Your task to perform on an android device: Go to eBay Image 0: 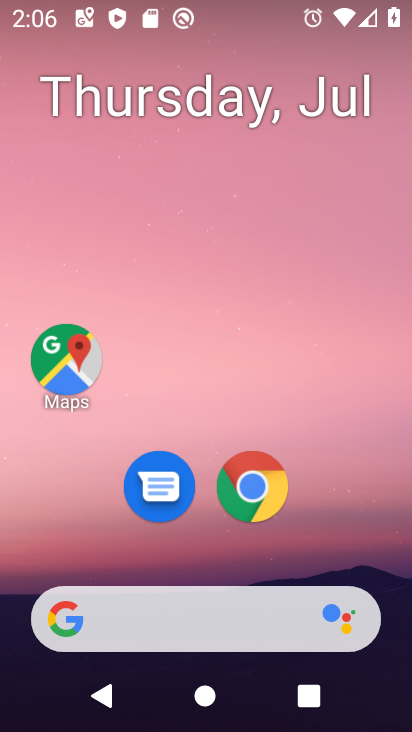
Step 0: click (260, 481)
Your task to perform on an android device: Go to eBay Image 1: 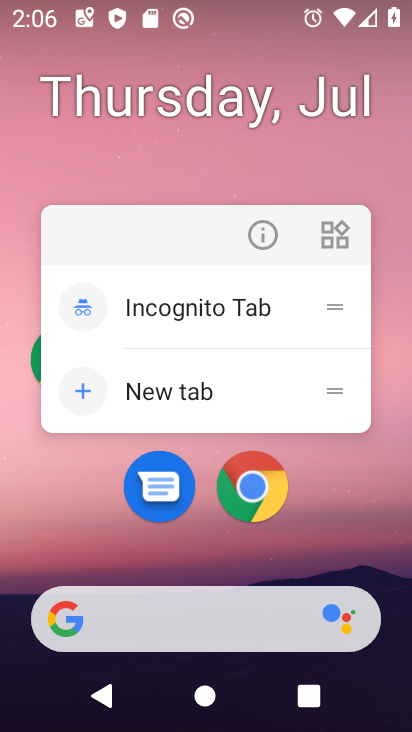
Step 1: click (253, 494)
Your task to perform on an android device: Go to eBay Image 2: 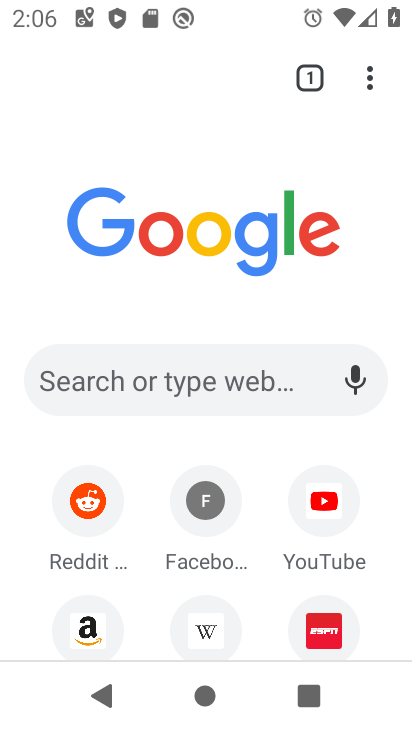
Step 2: click (131, 396)
Your task to perform on an android device: Go to eBay Image 3: 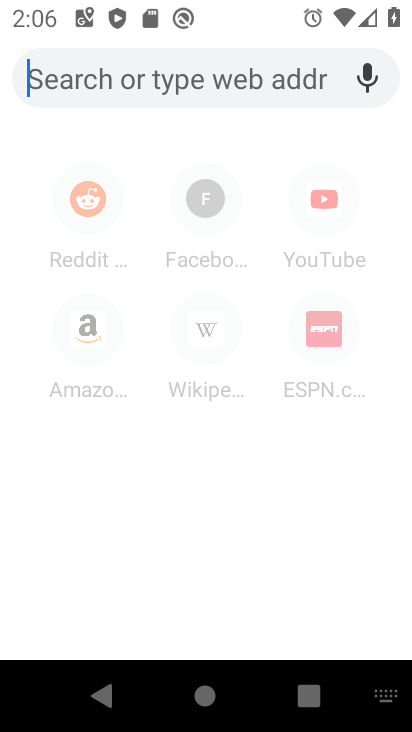
Step 3: type "ebay"
Your task to perform on an android device: Go to eBay Image 4: 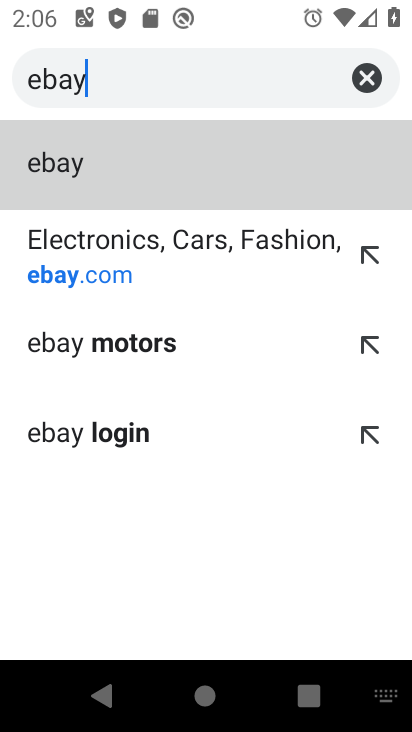
Step 4: click (95, 272)
Your task to perform on an android device: Go to eBay Image 5: 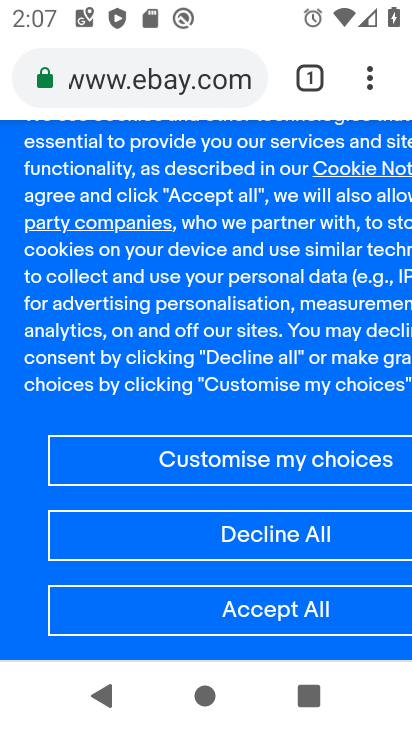
Step 5: task complete